Your task to perform on an android device: toggle notification dots Image 0: 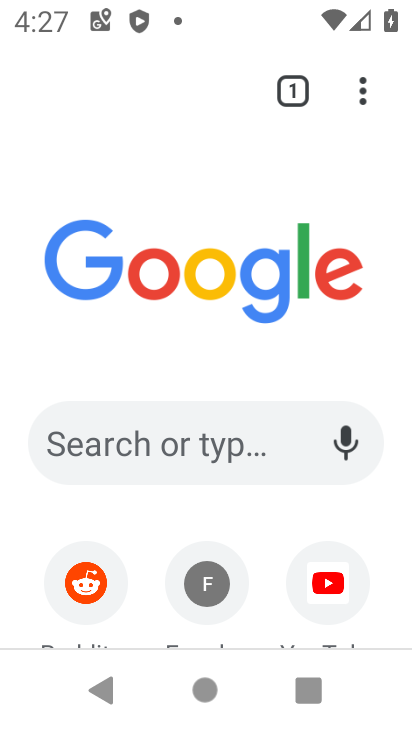
Step 0: press home button
Your task to perform on an android device: toggle notification dots Image 1: 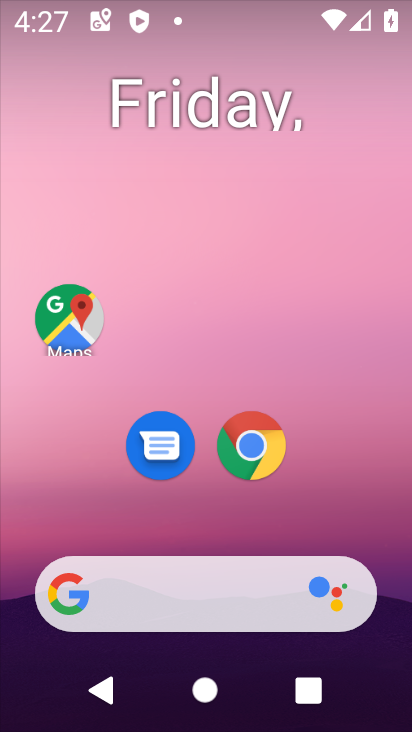
Step 1: drag from (319, 531) to (282, 139)
Your task to perform on an android device: toggle notification dots Image 2: 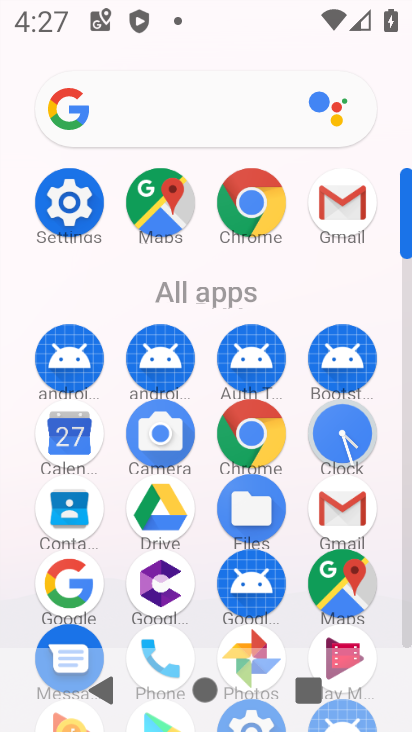
Step 2: drag from (287, 297) to (257, 104)
Your task to perform on an android device: toggle notification dots Image 3: 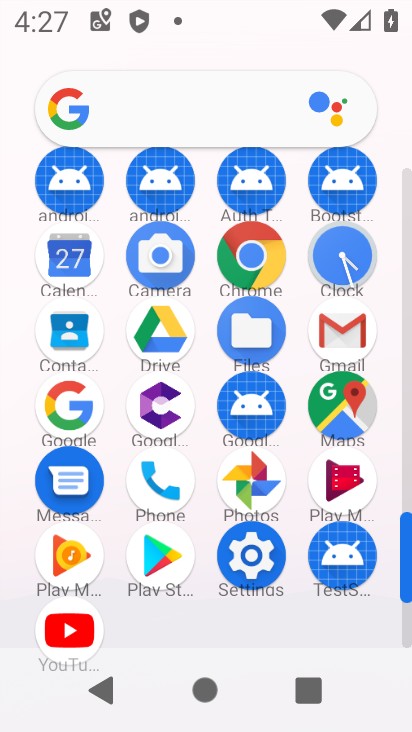
Step 3: click (259, 559)
Your task to perform on an android device: toggle notification dots Image 4: 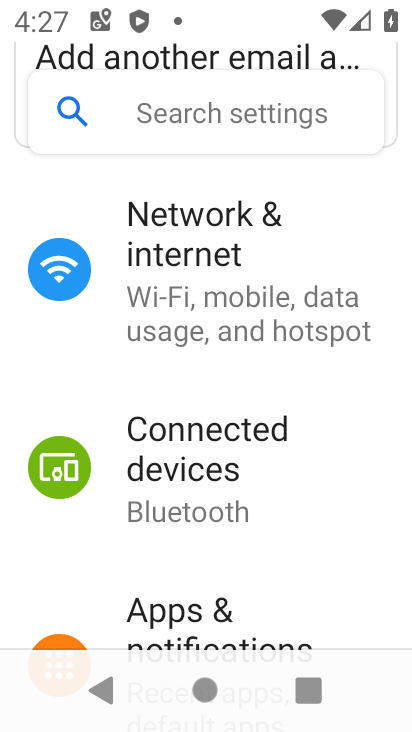
Step 4: drag from (344, 621) to (294, 346)
Your task to perform on an android device: toggle notification dots Image 5: 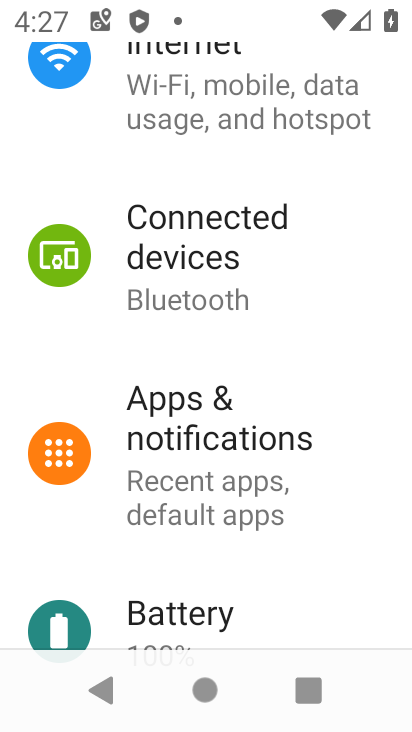
Step 5: click (205, 461)
Your task to perform on an android device: toggle notification dots Image 6: 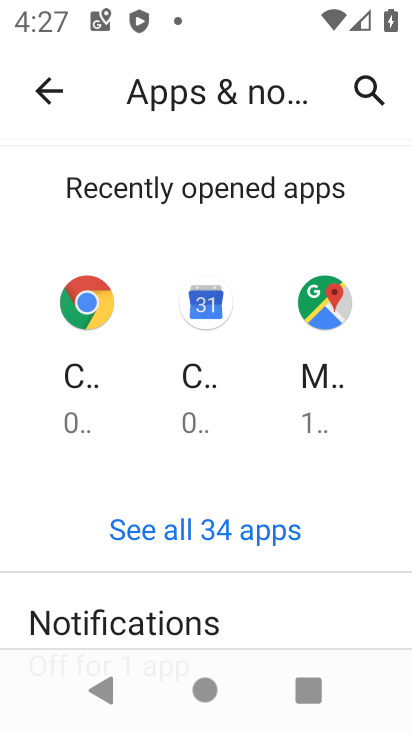
Step 6: drag from (287, 627) to (242, 314)
Your task to perform on an android device: toggle notification dots Image 7: 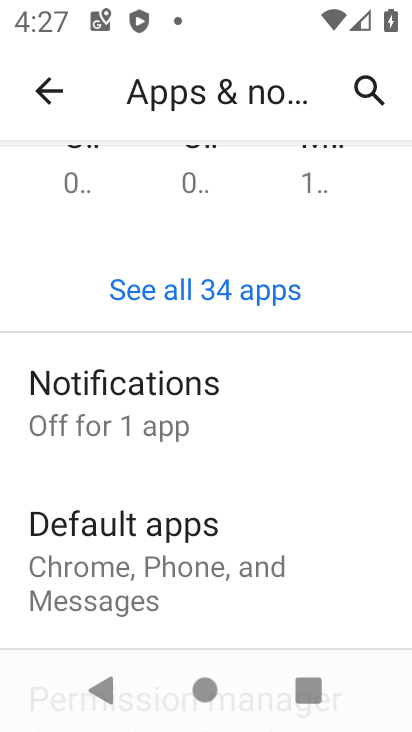
Step 7: click (178, 412)
Your task to perform on an android device: toggle notification dots Image 8: 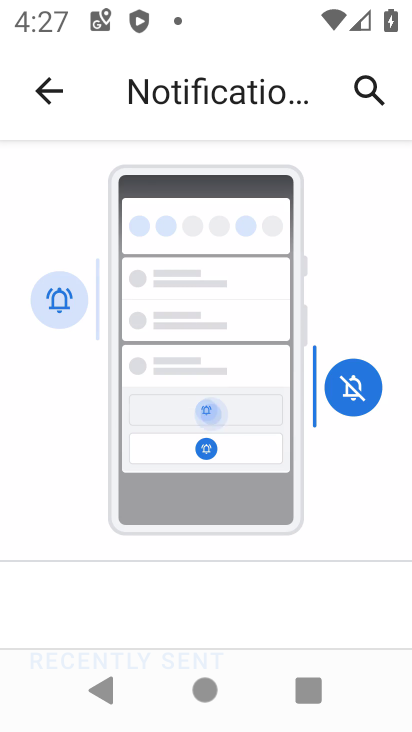
Step 8: drag from (333, 618) to (282, 96)
Your task to perform on an android device: toggle notification dots Image 9: 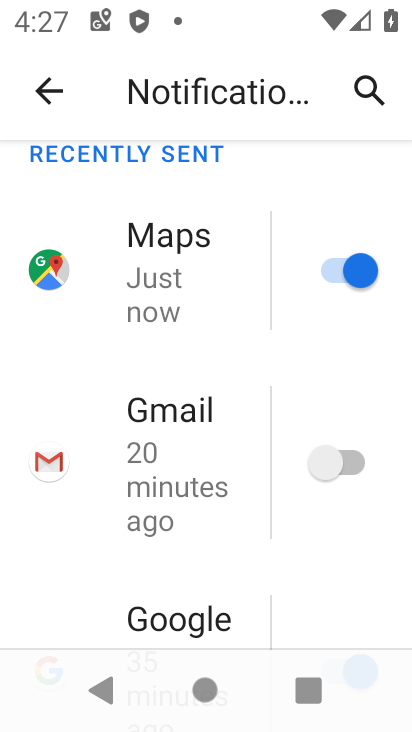
Step 9: drag from (225, 602) to (227, 66)
Your task to perform on an android device: toggle notification dots Image 10: 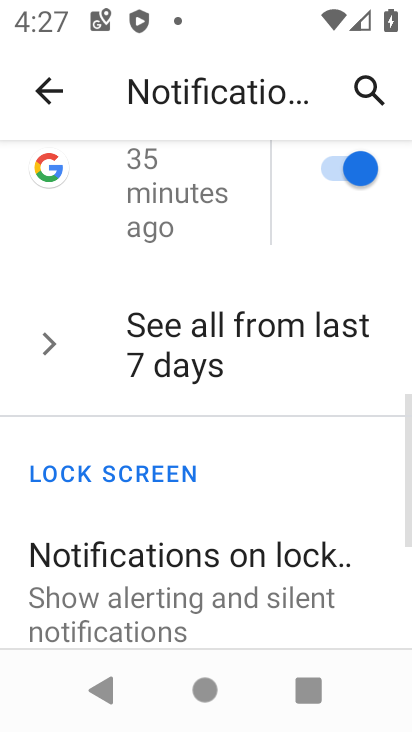
Step 10: drag from (248, 496) to (208, 133)
Your task to perform on an android device: toggle notification dots Image 11: 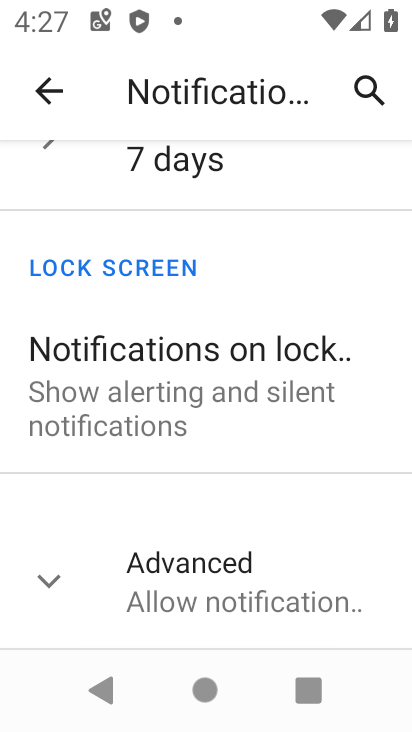
Step 11: click (104, 589)
Your task to perform on an android device: toggle notification dots Image 12: 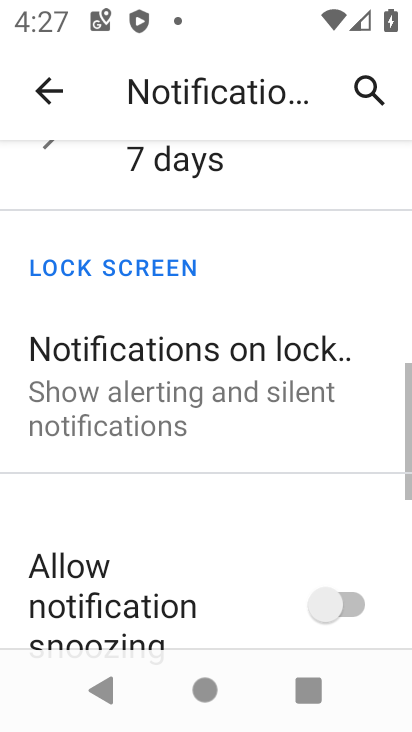
Step 12: drag from (195, 556) to (166, 16)
Your task to perform on an android device: toggle notification dots Image 13: 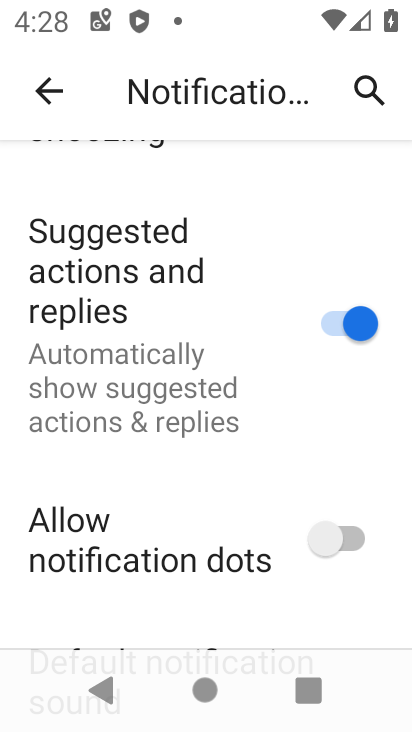
Step 13: click (349, 546)
Your task to perform on an android device: toggle notification dots Image 14: 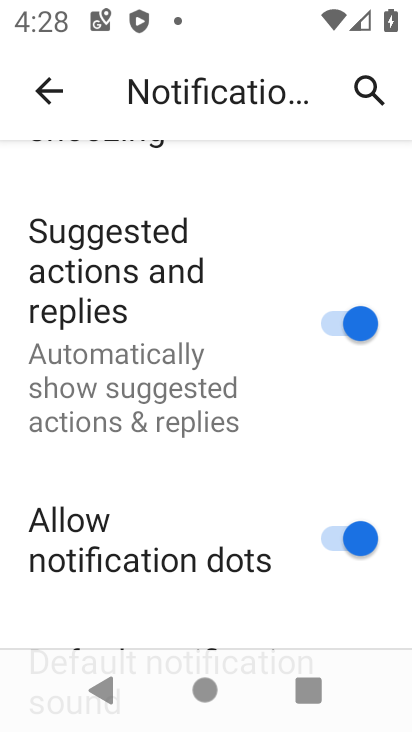
Step 14: task complete